Your task to perform on an android device: What's on my calendar today? Image 0: 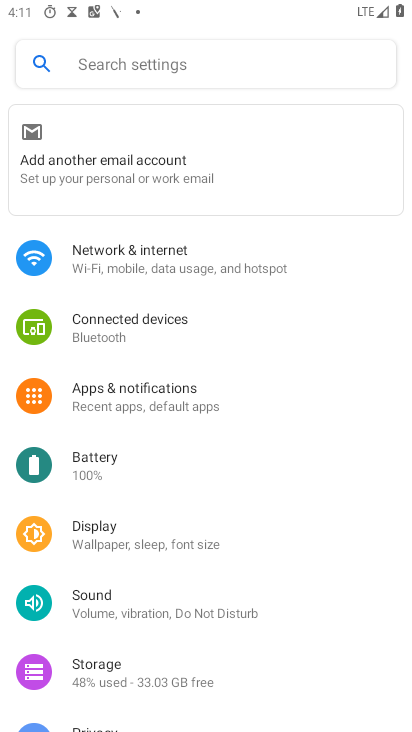
Step 0: press home button
Your task to perform on an android device: What's on my calendar today? Image 1: 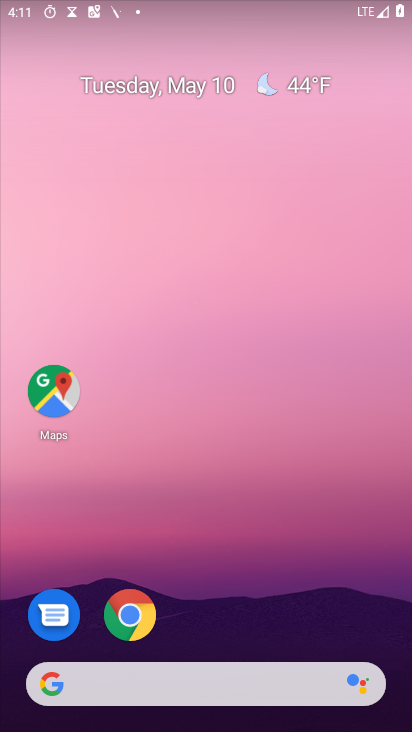
Step 1: drag from (217, 640) to (344, 7)
Your task to perform on an android device: What's on my calendar today? Image 2: 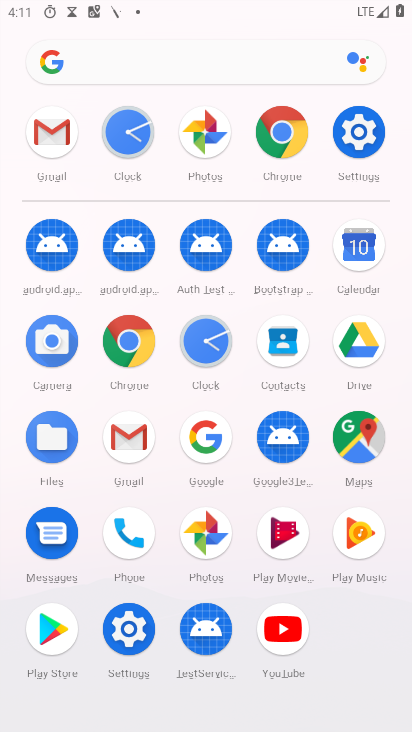
Step 2: click (346, 240)
Your task to perform on an android device: What's on my calendar today? Image 3: 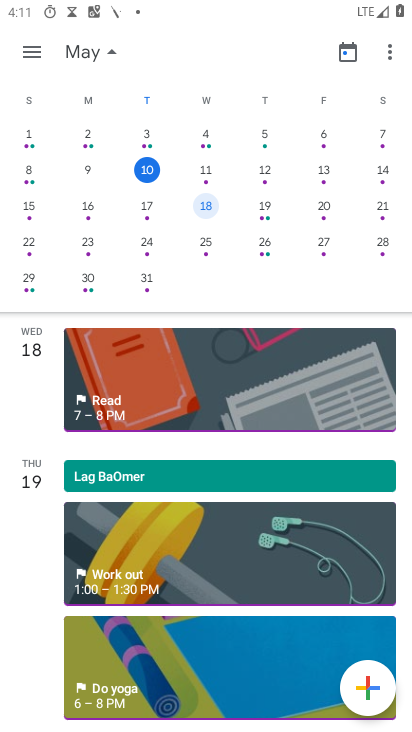
Step 3: click (154, 172)
Your task to perform on an android device: What's on my calendar today? Image 4: 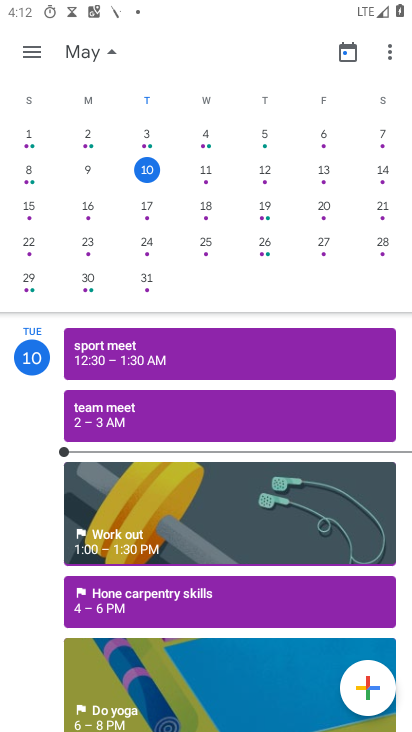
Step 4: task complete